Your task to perform on an android device: Go to Google Image 0: 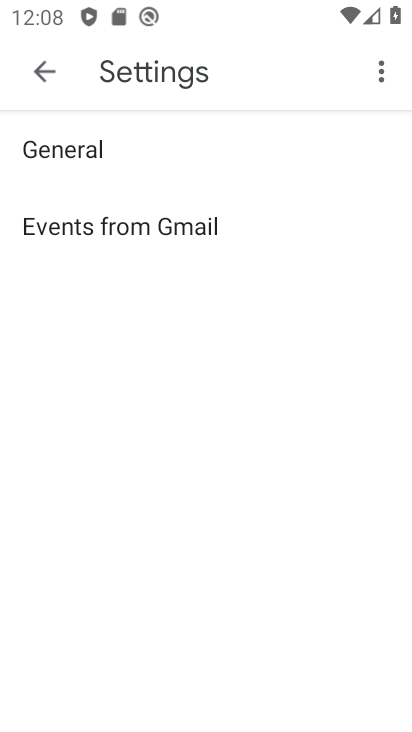
Step 0: press home button
Your task to perform on an android device: Go to Google Image 1: 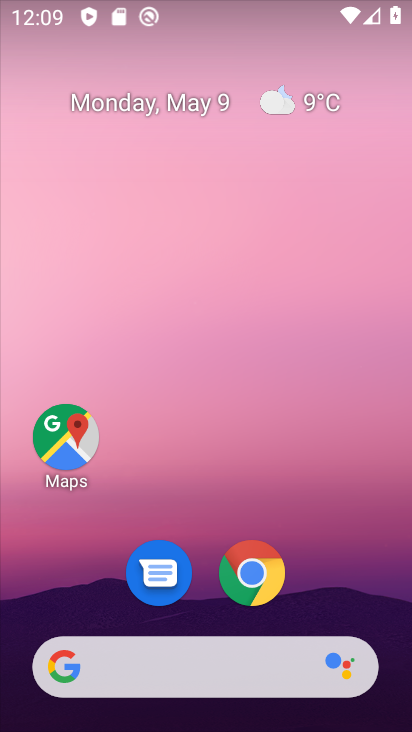
Step 1: drag from (189, 584) to (188, 3)
Your task to perform on an android device: Go to Google Image 2: 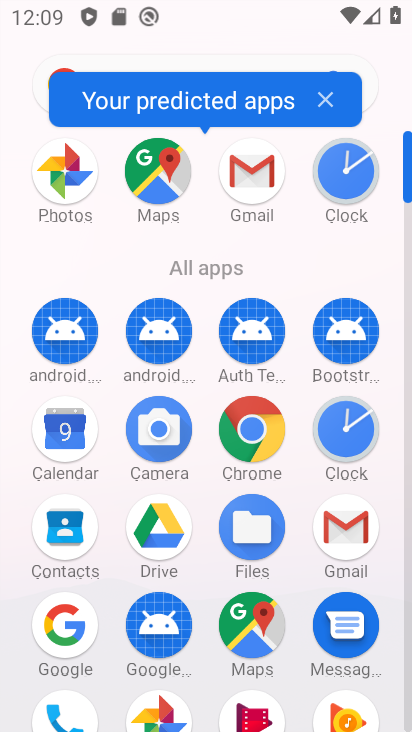
Step 2: click (85, 629)
Your task to perform on an android device: Go to Google Image 3: 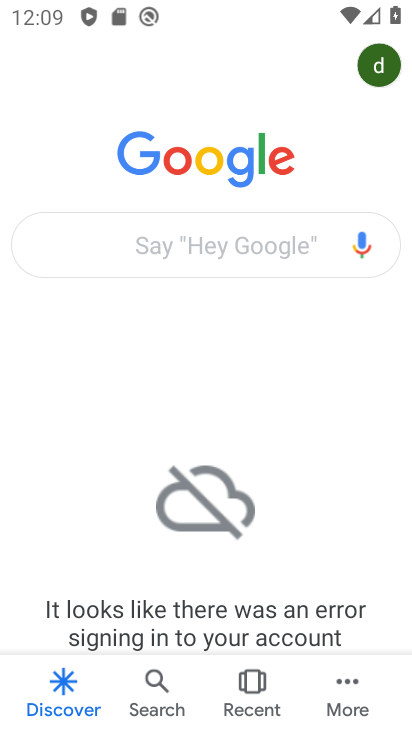
Step 3: task complete